Your task to perform on an android device: change your default location settings in chrome Image 0: 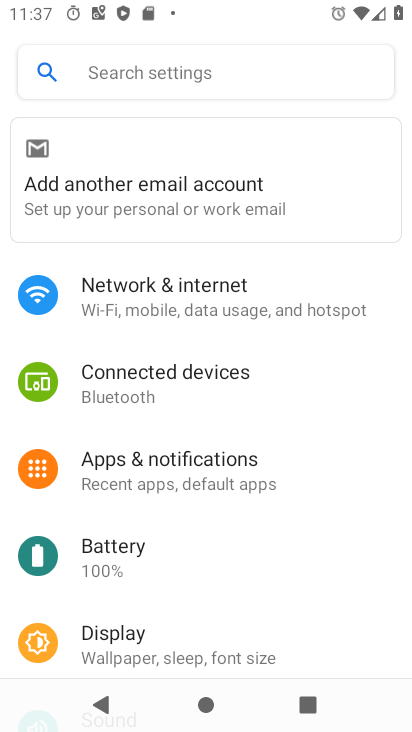
Step 0: press home button
Your task to perform on an android device: change your default location settings in chrome Image 1: 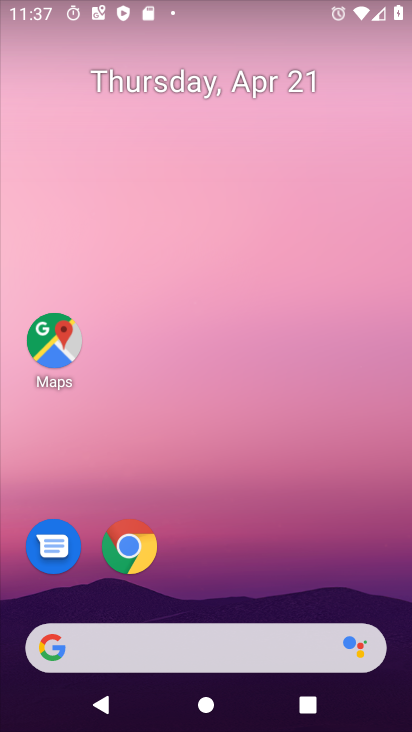
Step 1: click (129, 548)
Your task to perform on an android device: change your default location settings in chrome Image 2: 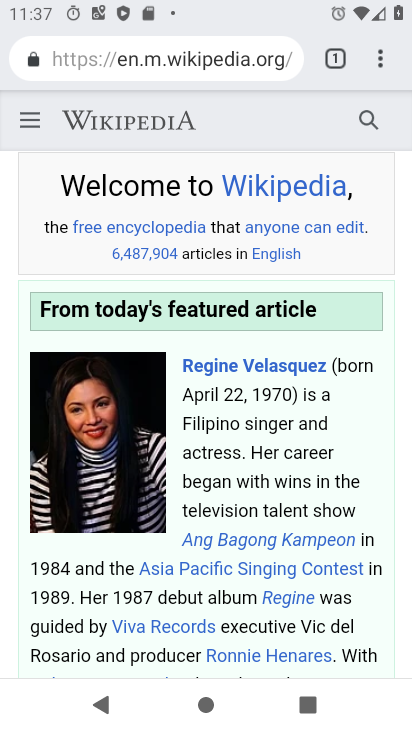
Step 2: click (377, 67)
Your task to perform on an android device: change your default location settings in chrome Image 3: 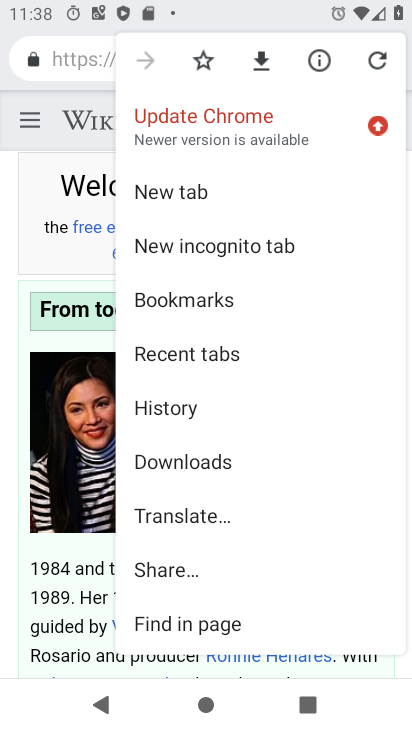
Step 3: drag from (268, 504) to (260, 145)
Your task to perform on an android device: change your default location settings in chrome Image 4: 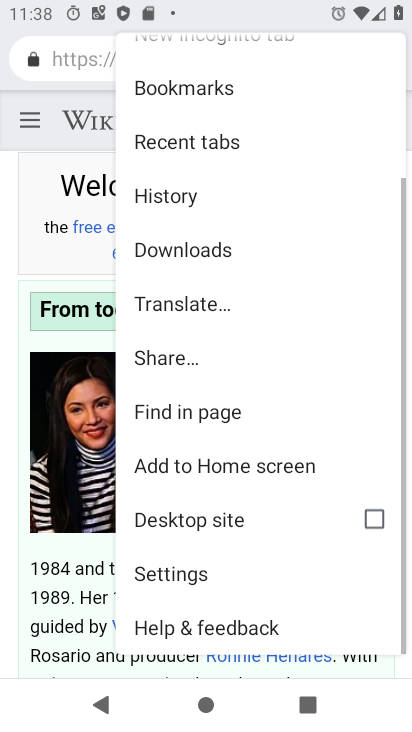
Step 4: click (141, 574)
Your task to perform on an android device: change your default location settings in chrome Image 5: 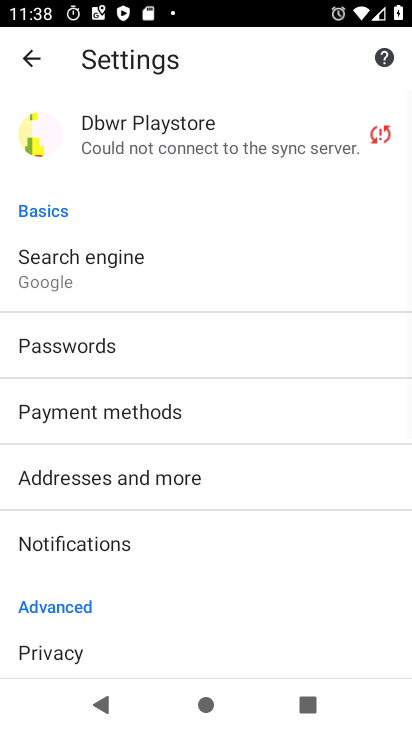
Step 5: drag from (139, 614) to (152, 291)
Your task to perform on an android device: change your default location settings in chrome Image 6: 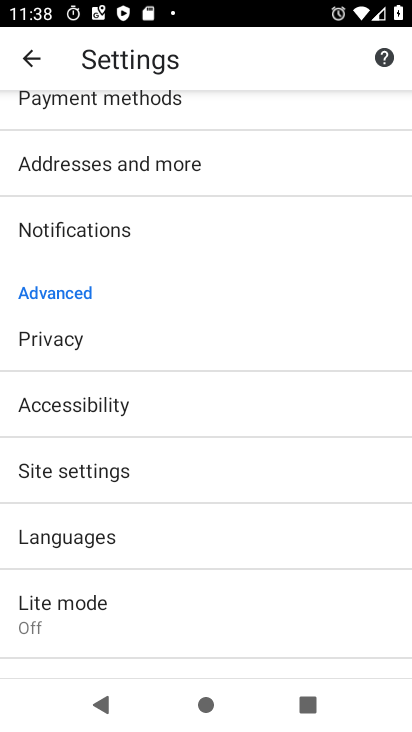
Step 6: click (85, 474)
Your task to perform on an android device: change your default location settings in chrome Image 7: 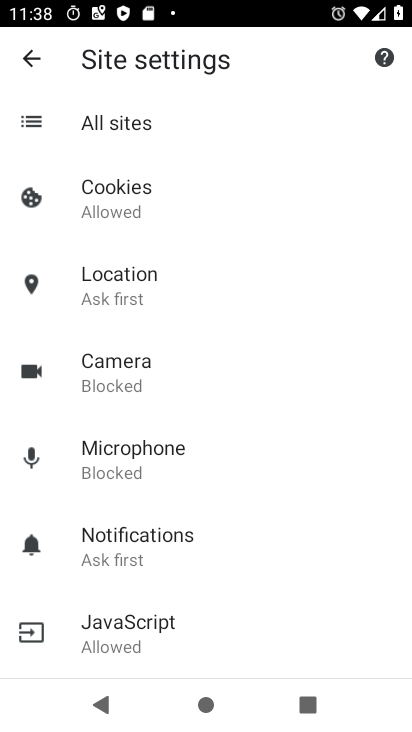
Step 7: click (142, 310)
Your task to perform on an android device: change your default location settings in chrome Image 8: 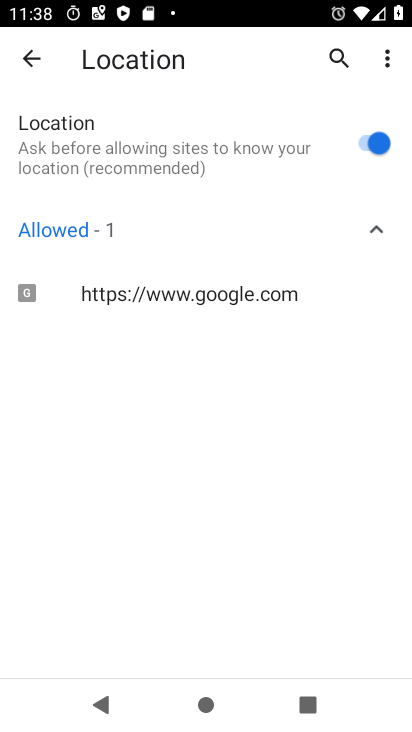
Step 8: click (383, 140)
Your task to perform on an android device: change your default location settings in chrome Image 9: 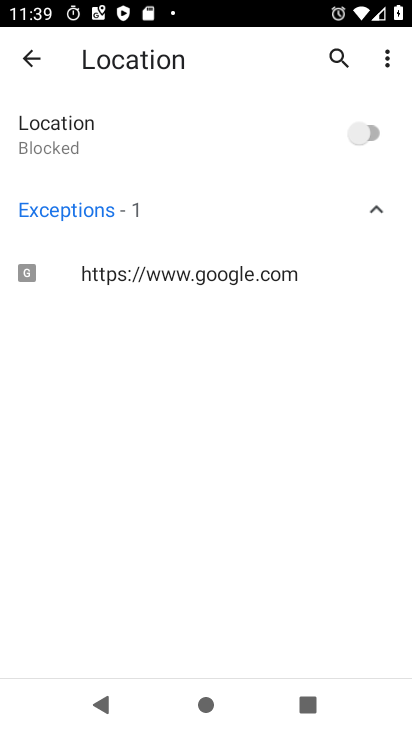
Step 9: task complete